Your task to perform on an android device: Turn on the flashlight Image 0: 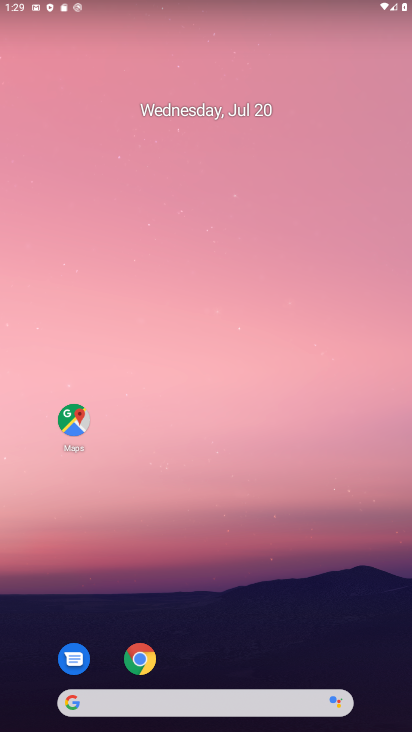
Step 0: drag from (321, 108) to (302, 505)
Your task to perform on an android device: Turn on the flashlight Image 1: 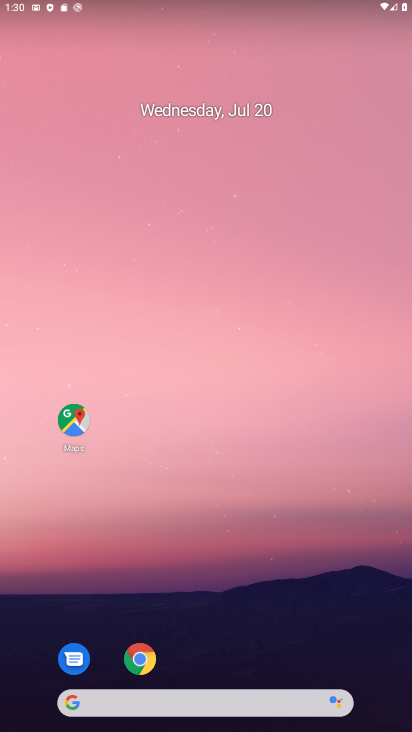
Step 1: drag from (262, 6) to (224, 602)
Your task to perform on an android device: Turn on the flashlight Image 2: 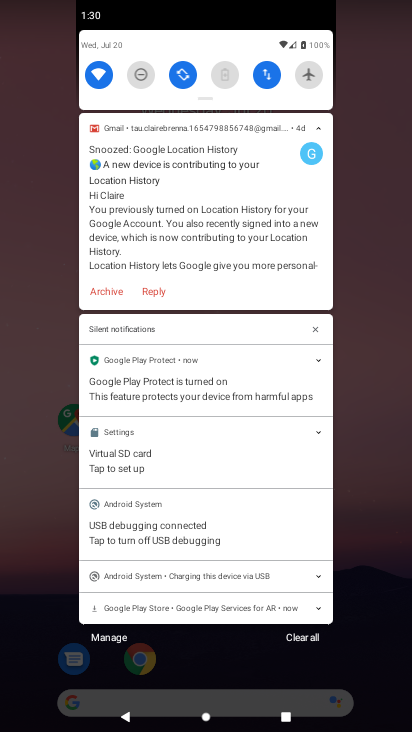
Step 2: drag from (241, 93) to (216, 542)
Your task to perform on an android device: Turn on the flashlight Image 3: 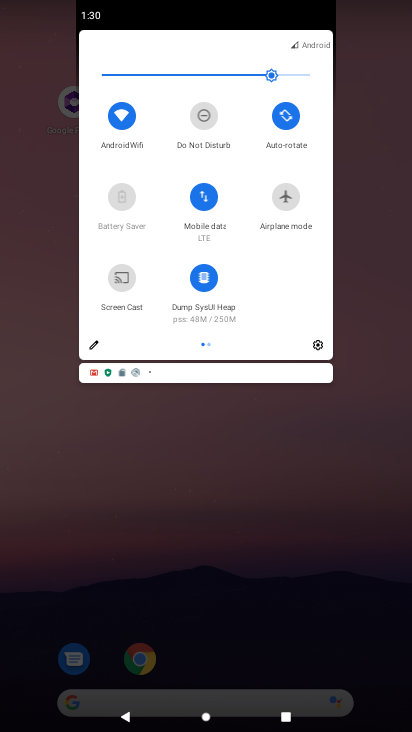
Step 3: click (91, 345)
Your task to perform on an android device: Turn on the flashlight Image 4: 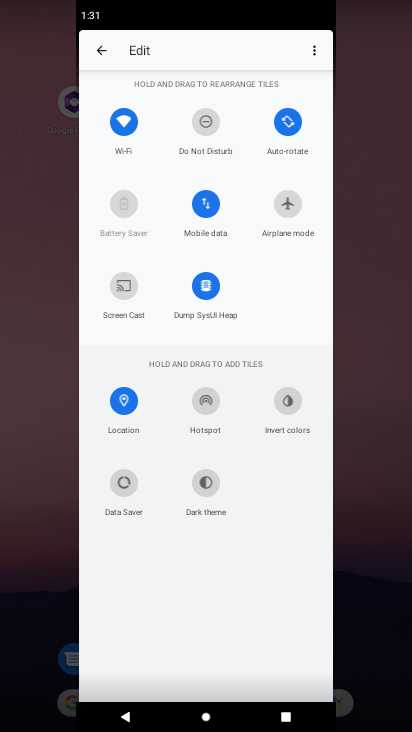
Step 4: task complete